Your task to perform on an android device: uninstall "DoorDash - Food Delivery" Image 0: 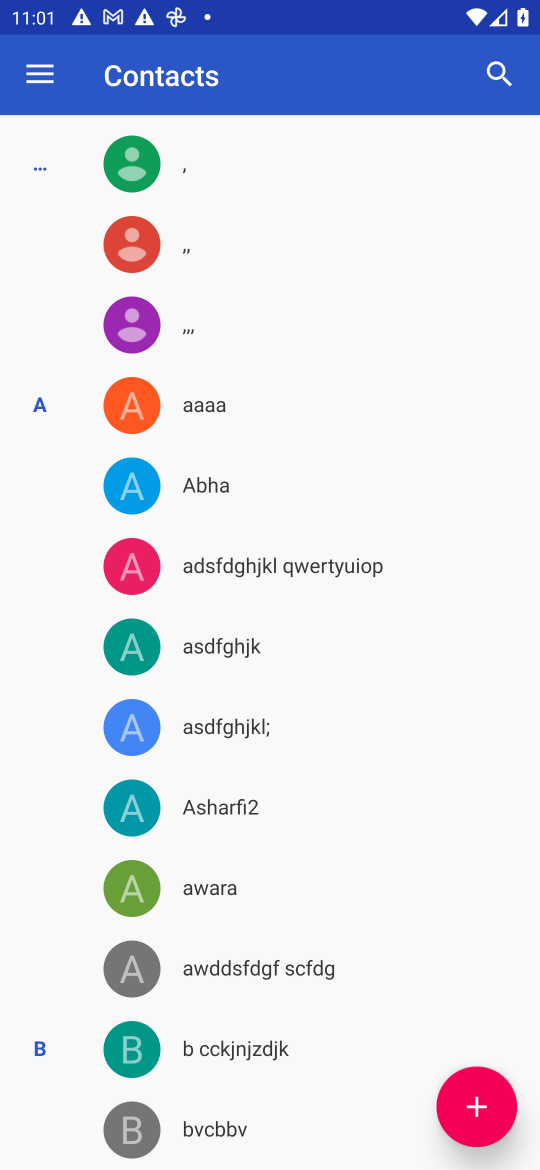
Step 0: press home button
Your task to perform on an android device: uninstall "DoorDash - Food Delivery" Image 1: 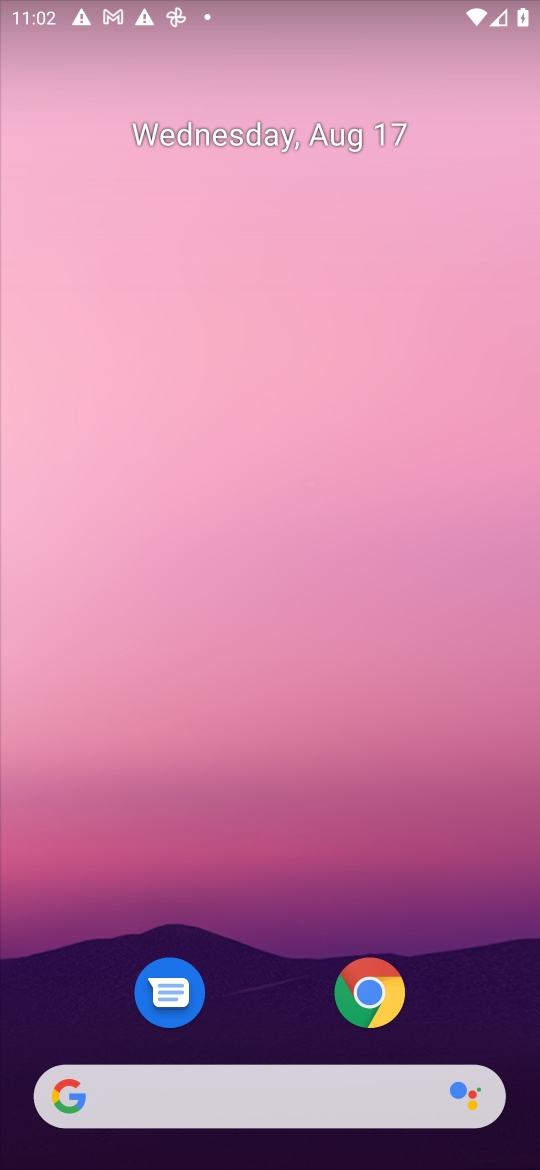
Step 1: drag from (479, 987) to (181, 7)
Your task to perform on an android device: uninstall "DoorDash - Food Delivery" Image 2: 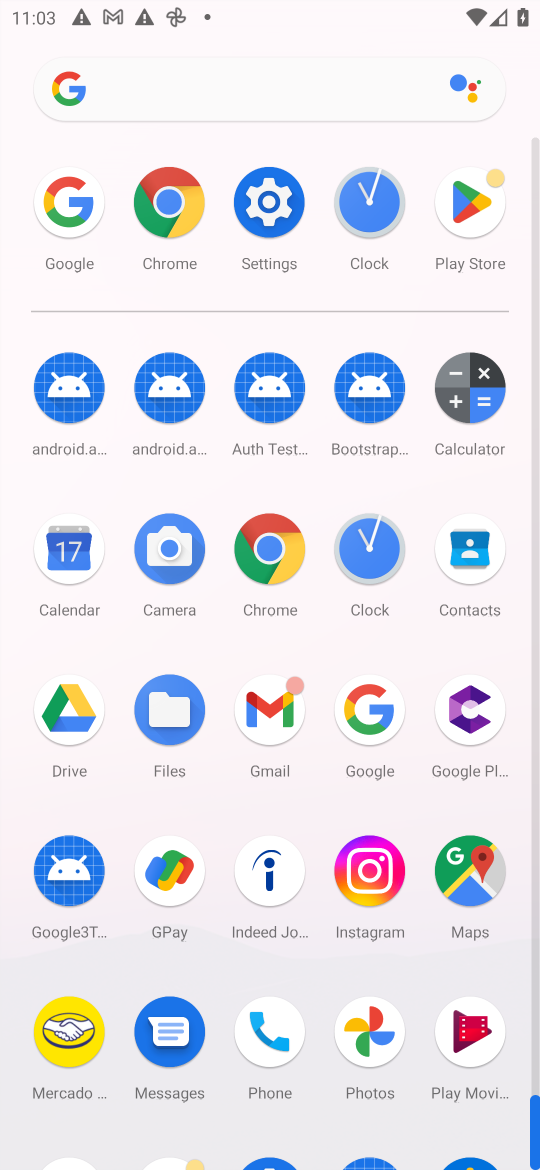
Step 2: click (450, 189)
Your task to perform on an android device: uninstall "DoorDash - Food Delivery" Image 3: 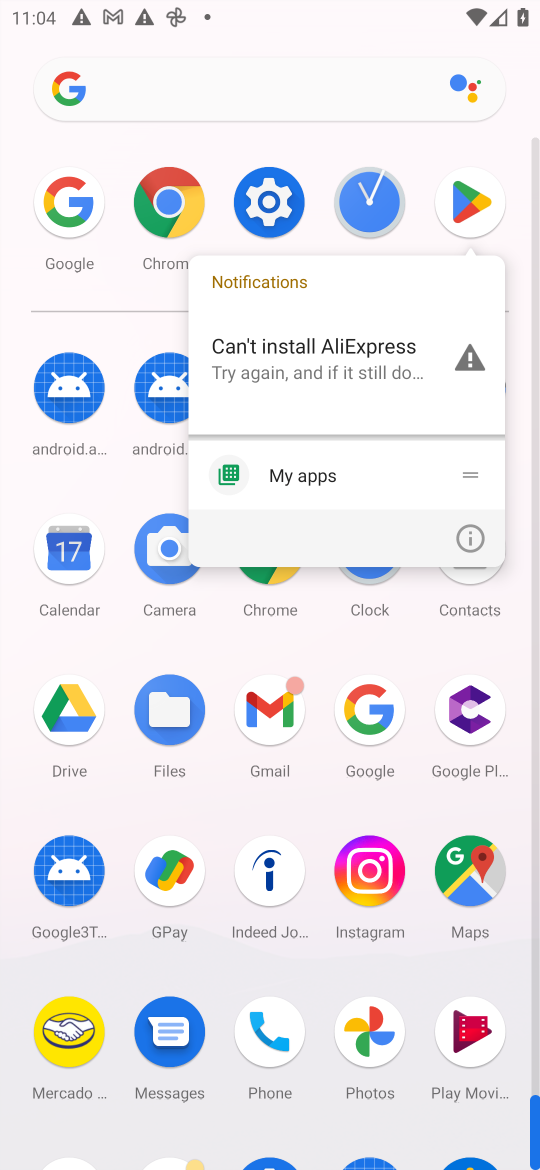
Step 3: click (451, 180)
Your task to perform on an android device: uninstall "DoorDash - Food Delivery" Image 4: 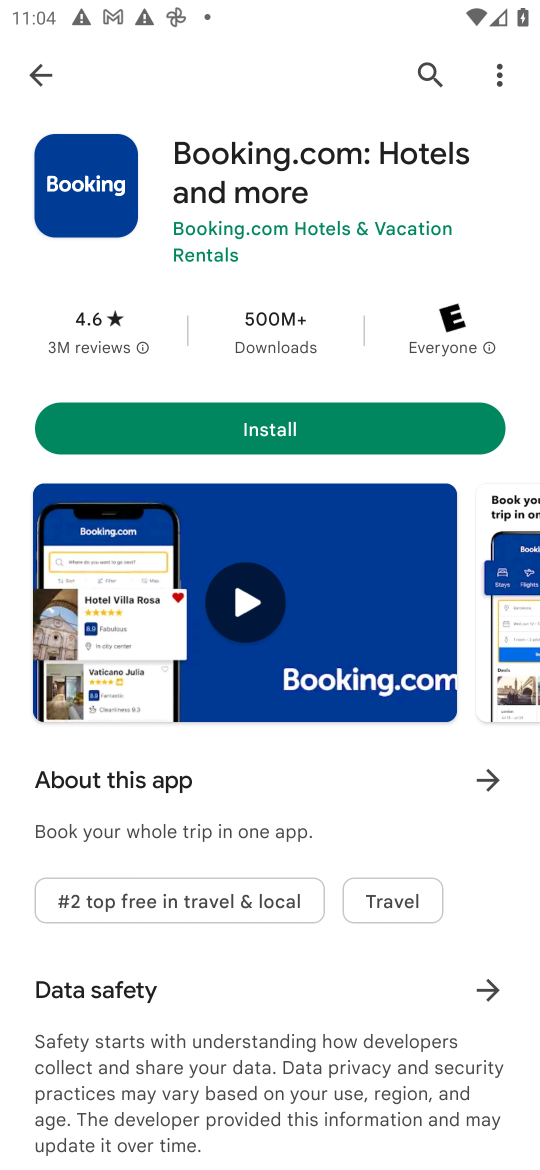
Step 4: press back button
Your task to perform on an android device: uninstall "DoorDash - Food Delivery" Image 5: 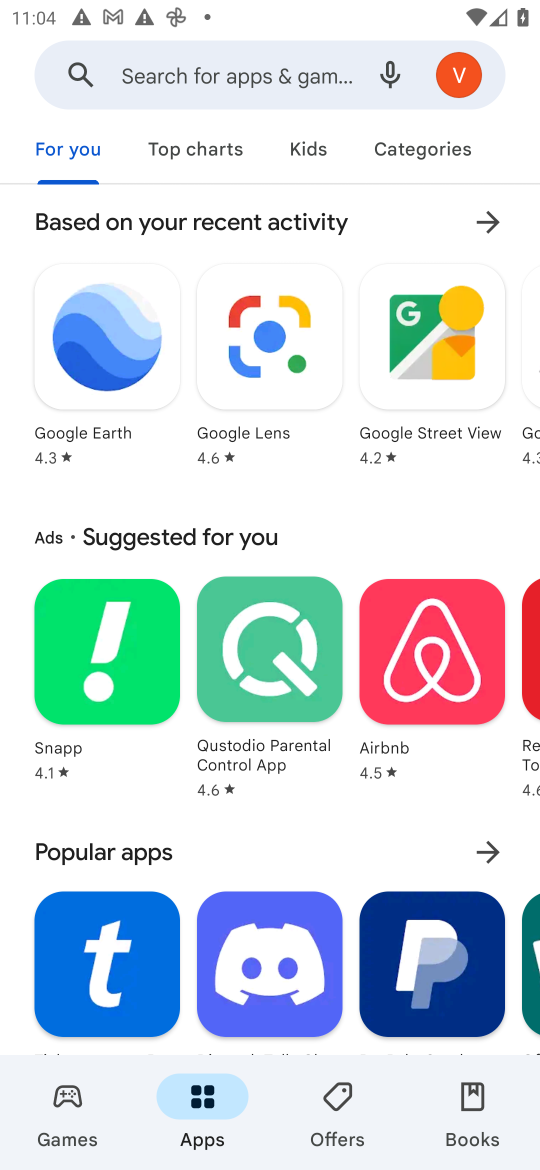
Step 5: click (243, 80)
Your task to perform on an android device: uninstall "DoorDash - Food Delivery" Image 6: 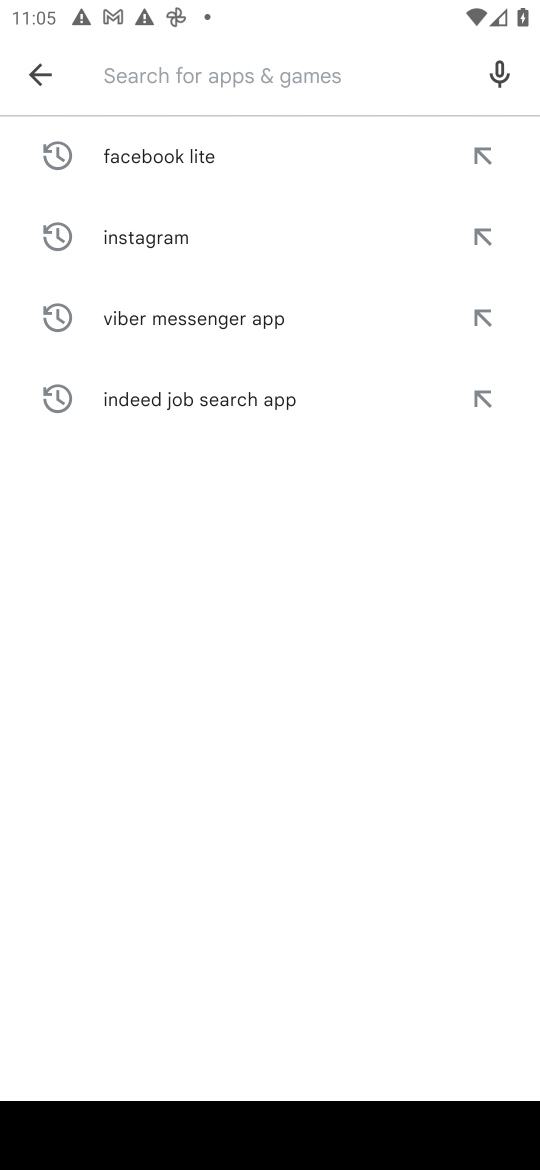
Step 6: type "DoorDash - Food Delivery"
Your task to perform on an android device: uninstall "DoorDash - Food Delivery" Image 7: 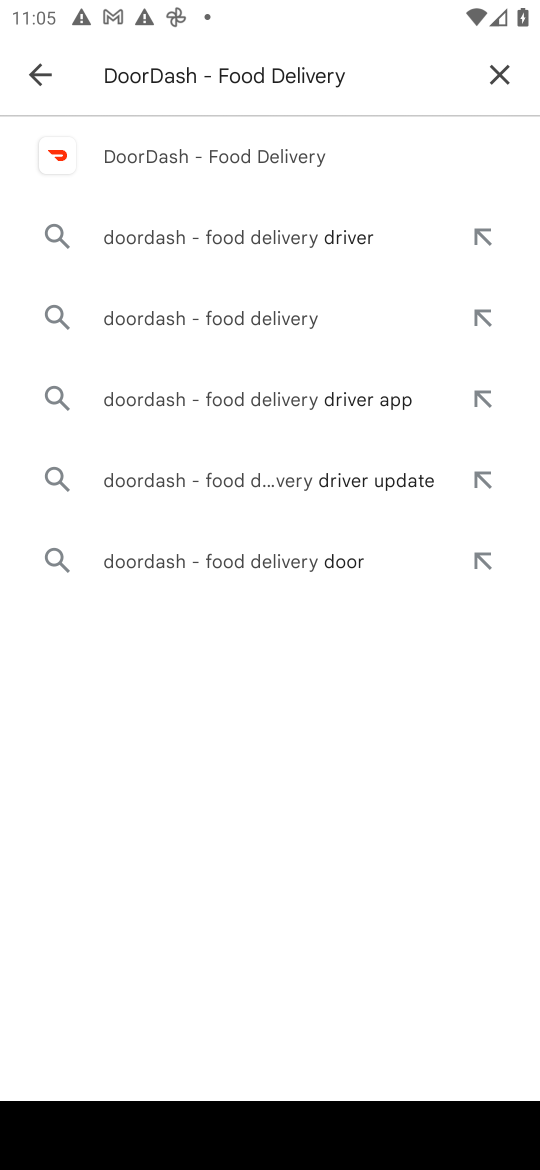
Step 7: click (250, 155)
Your task to perform on an android device: uninstall "DoorDash - Food Delivery" Image 8: 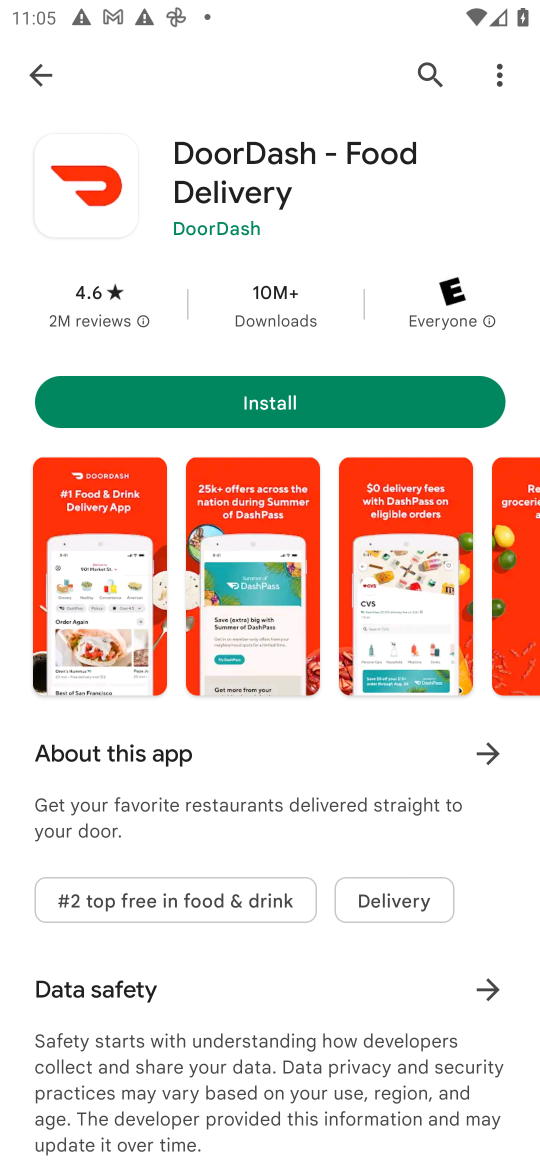
Step 8: task complete